Your task to perform on an android device: manage bookmarks in the chrome app Image 0: 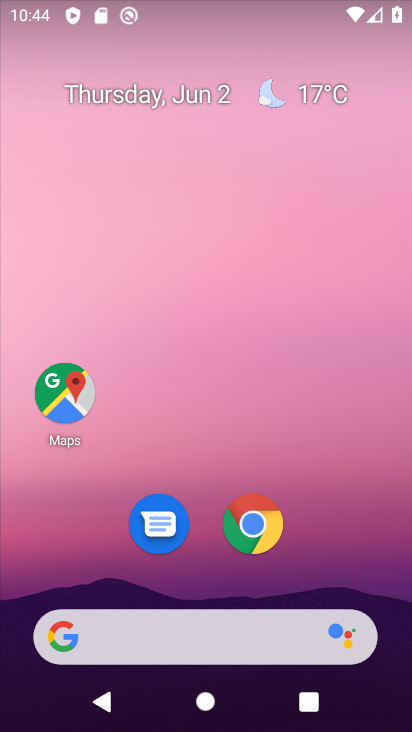
Step 0: click (261, 511)
Your task to perform on an android device: manage bookmarks in the chrome app Image 1: 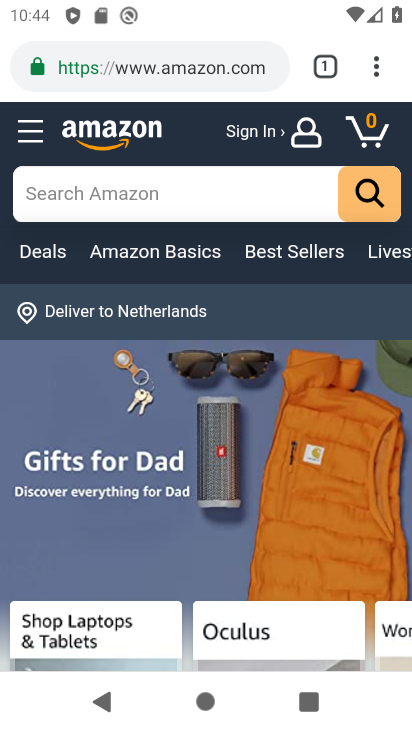
Step 1: click (381, 66)
Your task to perform on an android device: manage bookmarks in the chrome app Image 2: 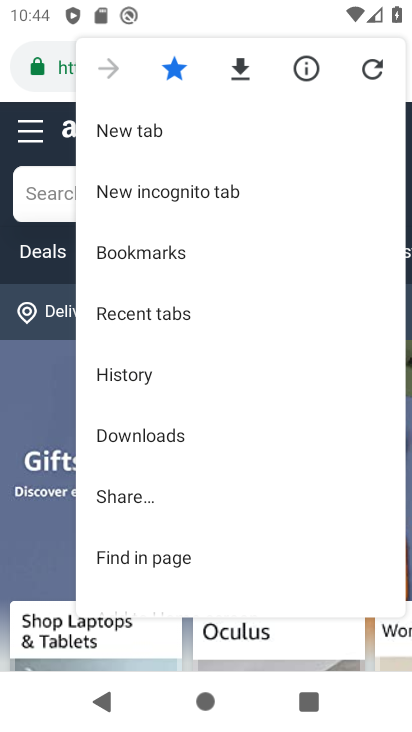
Step 2: click (192, 245)
Your task to perform on an android device: manage bookmarks in the chrome app Image 3: 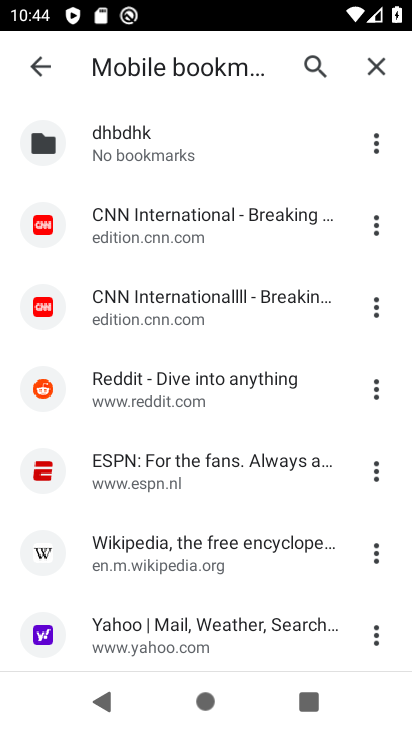
Step 3: click (372, 222)
Your task to perform on an android device: manage bookmarks in the chrome app Image 4: 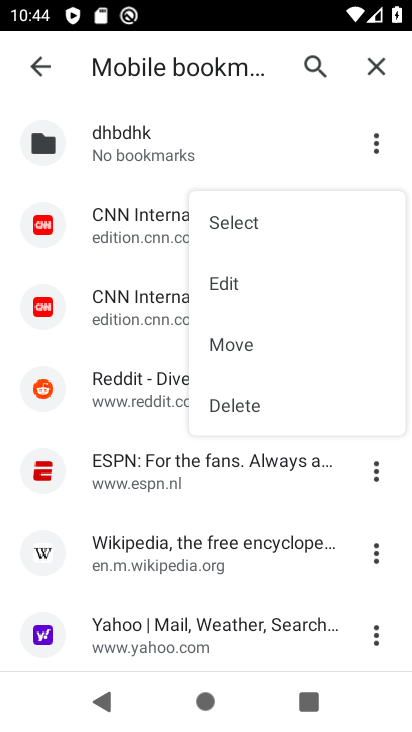
Step 4: click (266, 280)
Your task to perform on an android device: manage bookmarks in the chrome app Image 5: 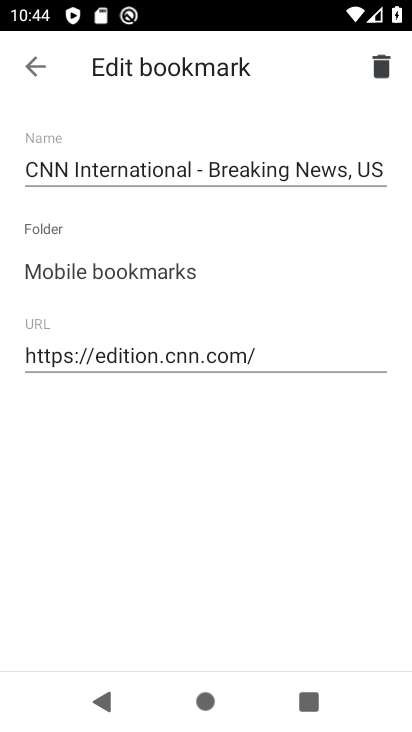
Step 5: click (29, 59)
Your task to perform on an android device: manage bookmarks in the chrome app Image 6: 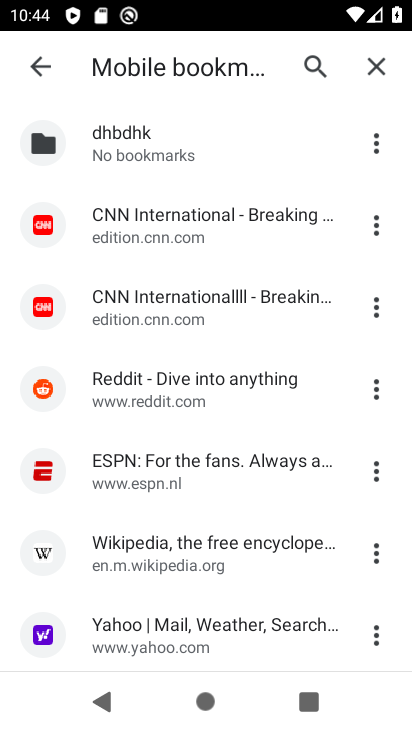
Step 6: task complete